Your task to perform on an android device: make emails show in primary in the gmail app Image 0: 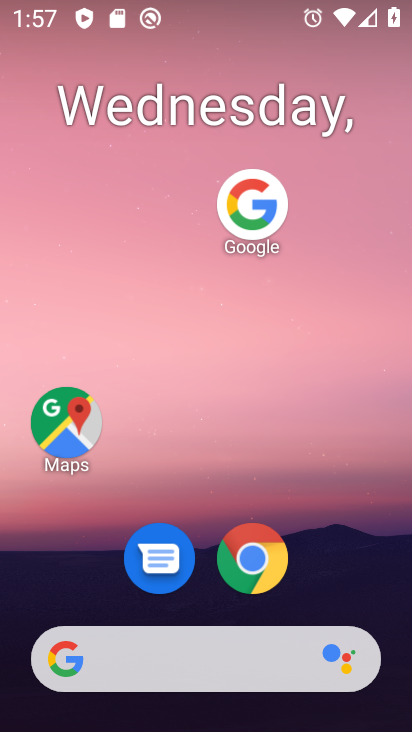
Step 0: drag from (384, 591) to (324, 125)
Your task to perform on an android device: make emails show in primary in the gmail app Image 1: 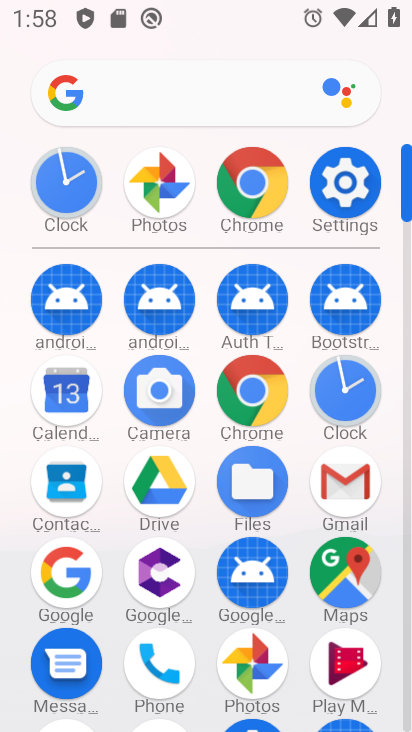
Step 1: click (353, 487)
Your task to perform on an android device: make emails show in primary in the gmail app Image 2: 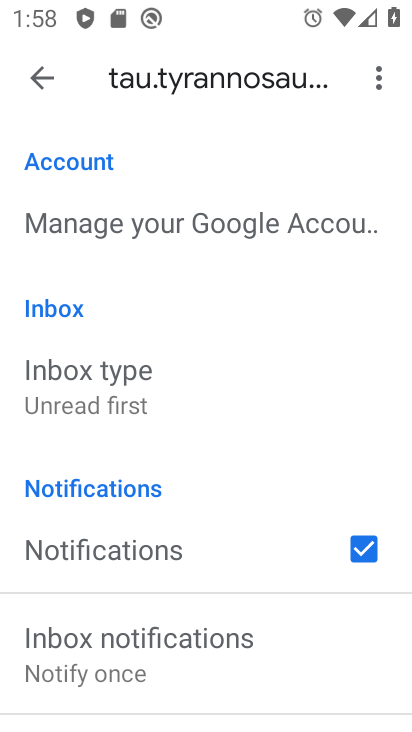
Step 2: click (167, 378)
Your task to perform on an android device: make emails show in primary in the gmail app Image 3: 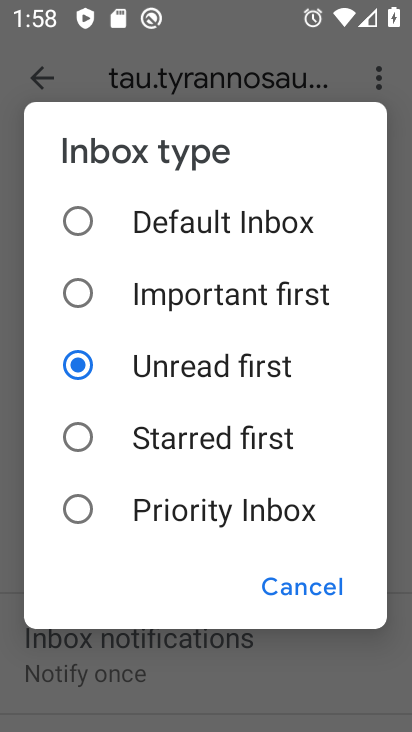
Step 3: click (212, 230)
Your task to perform on an android device: make emails show in primary in the gmail app Image 4: 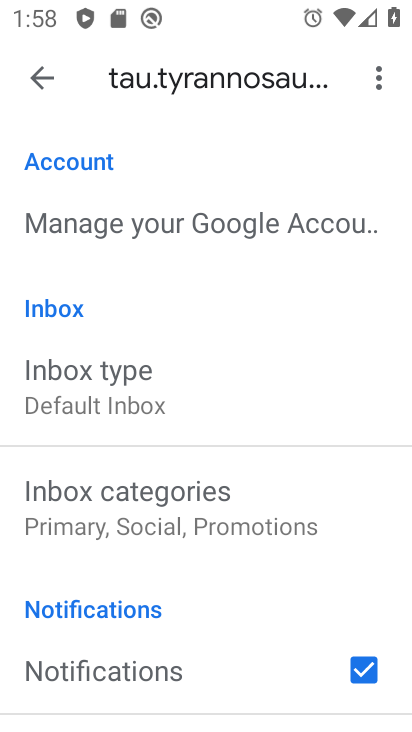
Step 4: task complete